Your task to perform on an android device: turn pop-ups off in chrome Image 0: 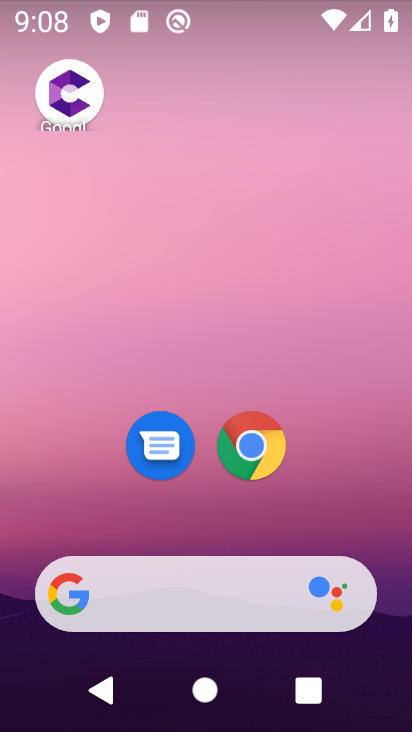
Step 0: click (255, 447)
Your task to perform on an android device: turn pop-ups off in chrome Image 1: 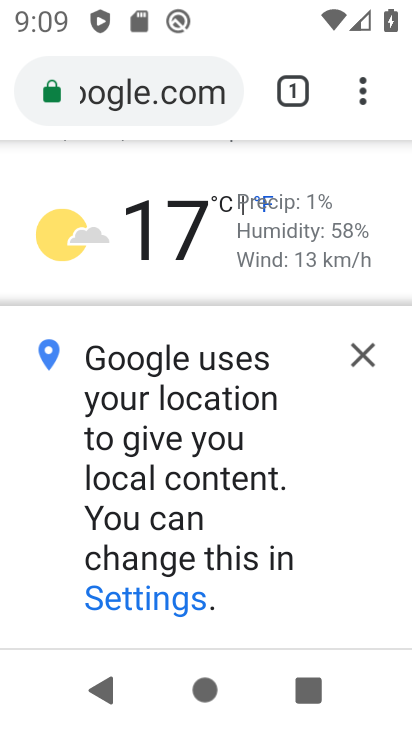
Step 1: press home button
Your task to perform on an android device: turn pop-ups off in chrome Image 2: 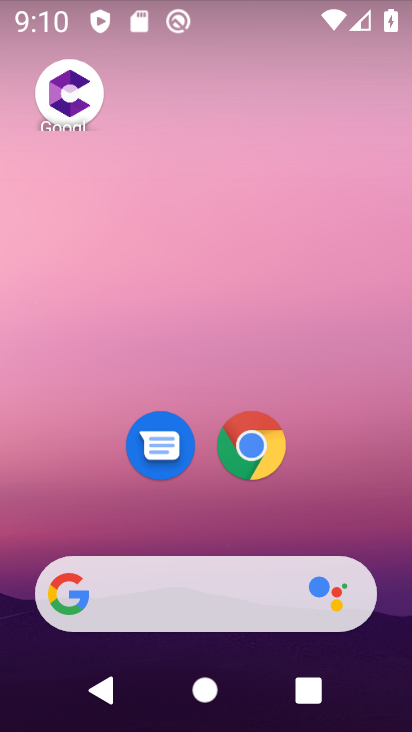
Step 2: click (253, 444)
Your task to perform on an android device: turn pop-ups off in chrome Image 3: 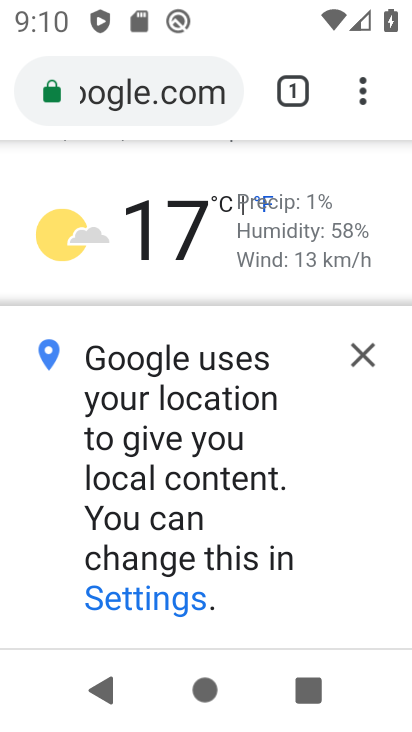
Step 3: click (361, 98)
Your task to perform on an android device: turn pop-ups off in chrome Image 4: 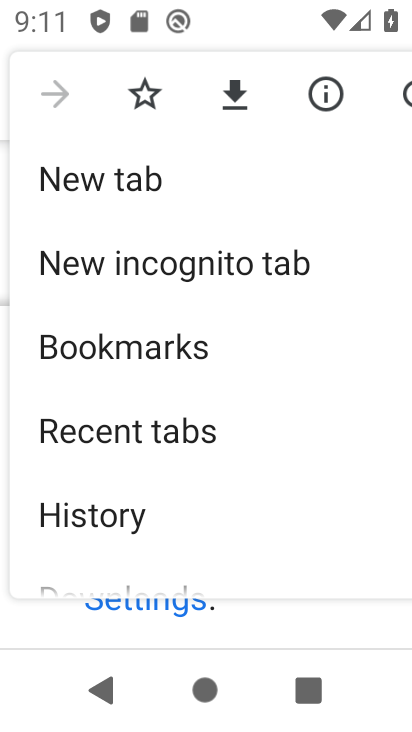
Step 4: drag from (139, 485) to (161, 172)
Your task to perform on an android device: turn pop-ups off in chrome Image 5: 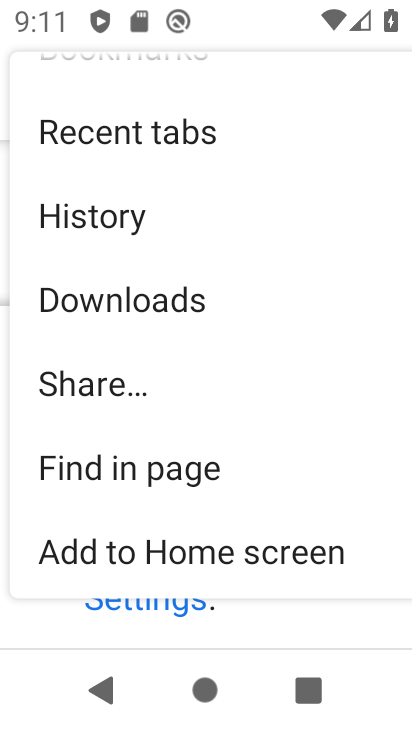
Step 5: drag from (154, 424) to (188, 192)
Your task to perform on an android device: turn pop-ups off in chrome Image 6: 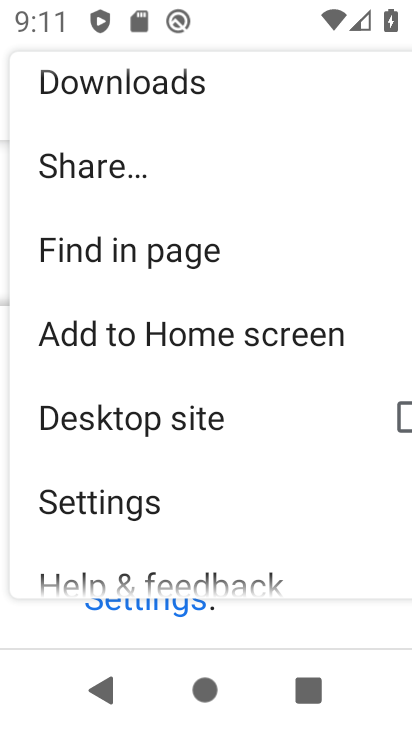
Step 6: click (112, 500)
Your task to perform on an android device: turn pop-ups off in chrome Image 7: 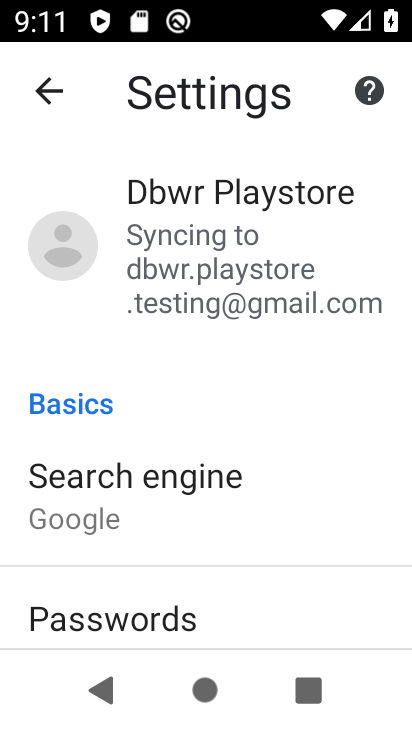
Step 7: drag from (148, 550) to (198, 217)
Your task to perform on an android device: turn pop-ups off in chrome Image 8: 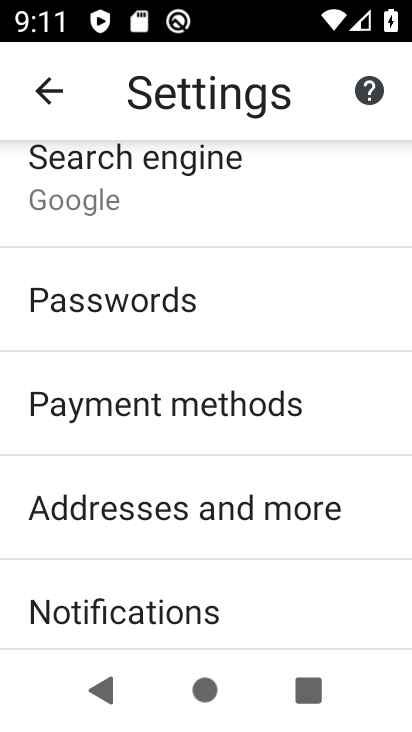
Step 8: drag from (179, 567) to (212, 255)
Your task to perform on an android device: turn pop-ups off in chrome Image 9: 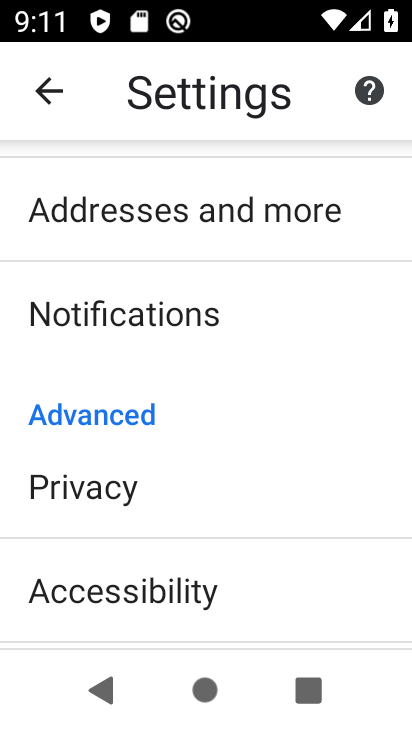
Step 9: drag from (143, 516) to (202, 268)
Your task to perform on an android device: turn pop-ups off in chrome Image 10: 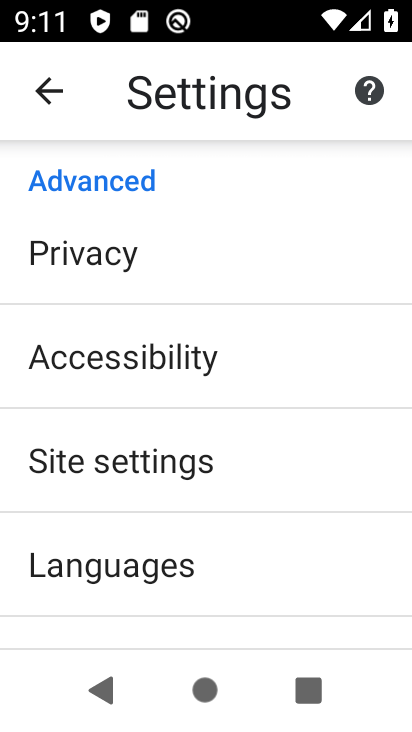
Step 10: click (143, 449)
Your task to perform on an android device: turn pop-ups off in chrome Image 11: 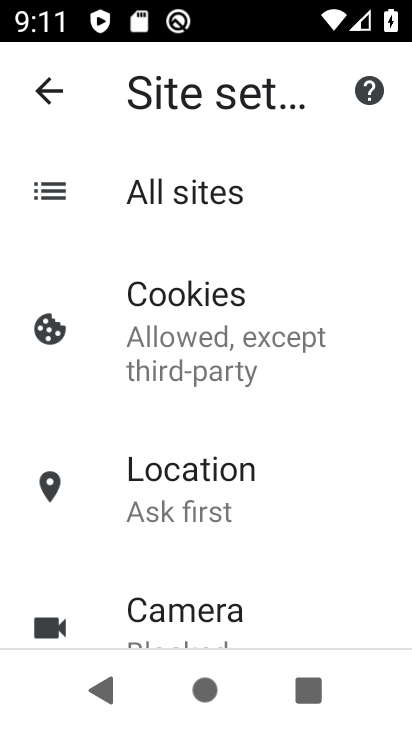
Step 11: drag from (181, 528) to (199, 325)
Your task to perform on an android device: turn pop-ups off in chrome Image 12: 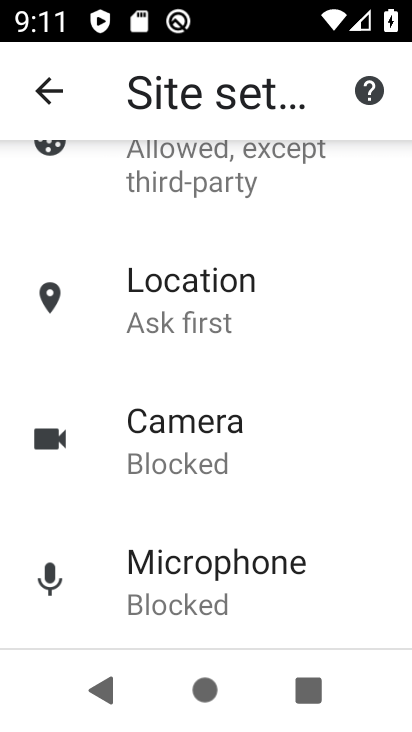
Step 12: drag from (231, 536) to (245, 222)
Your task to perform on an android device: turn pop-ups off in chrome Image 13: 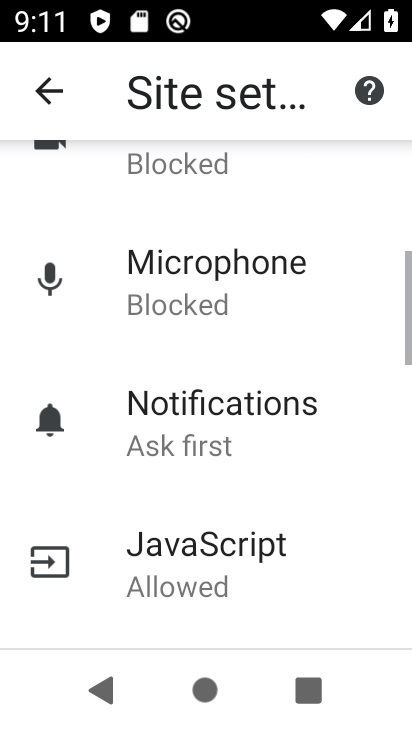
Step 13: drag from (228, 539) to (273, 305)
Your task to perform on an android device: turn pop-ups off in chrome Image 14: 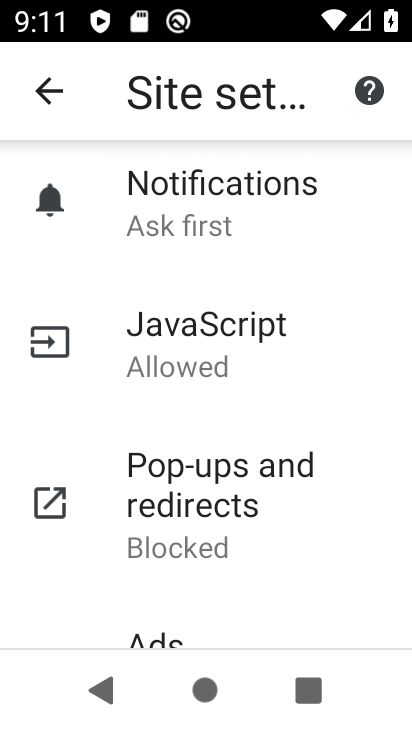
Step 14: click (210, 498)
Your task to perform on an android device: turn pop-ups off in chrome Image 15: 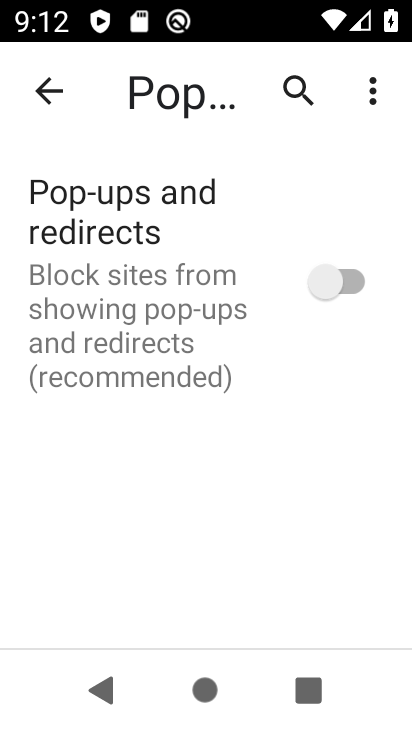
Step 15: task complete